Your task to perform on an android device: Open Chrome and go to settings Image 0: 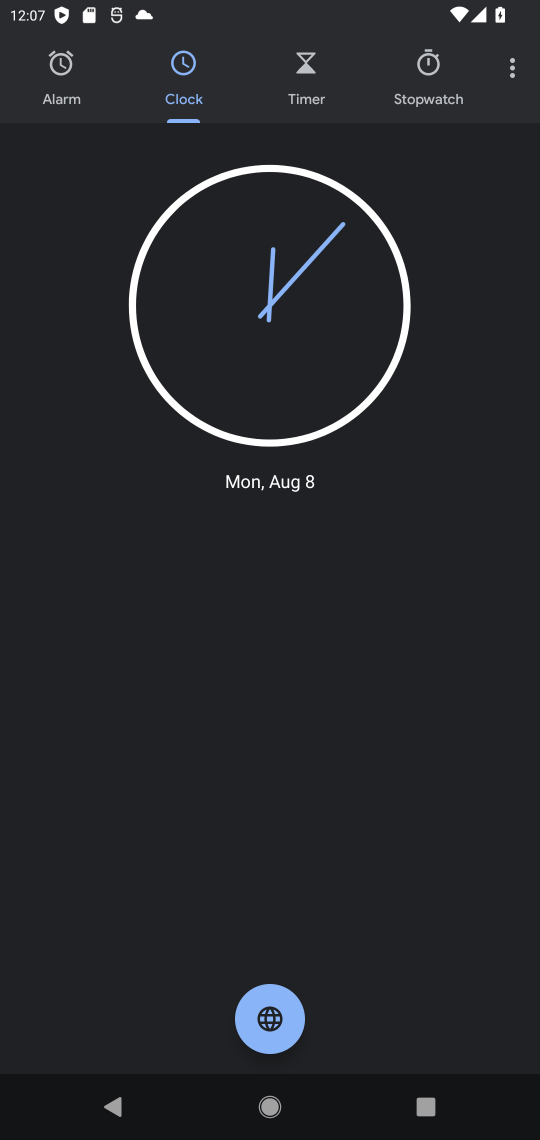
Step 0: press home button
Your task to perform on an android device: Open Chrome and go to settings Image 1: 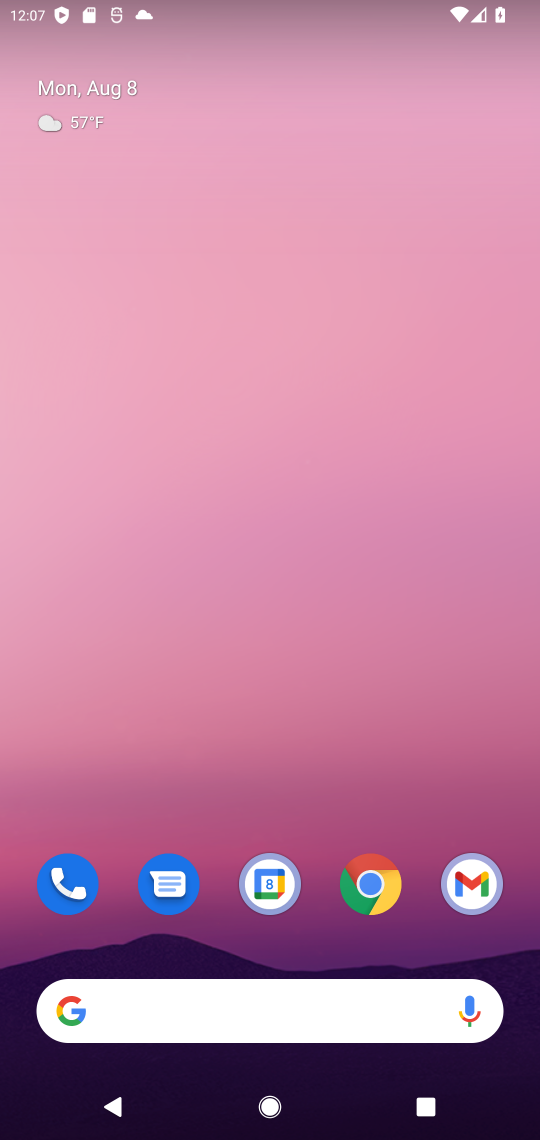
Step 1: click (377, 890)
Your task to perform on an android device: Open Chrome and go to settings Image 2: 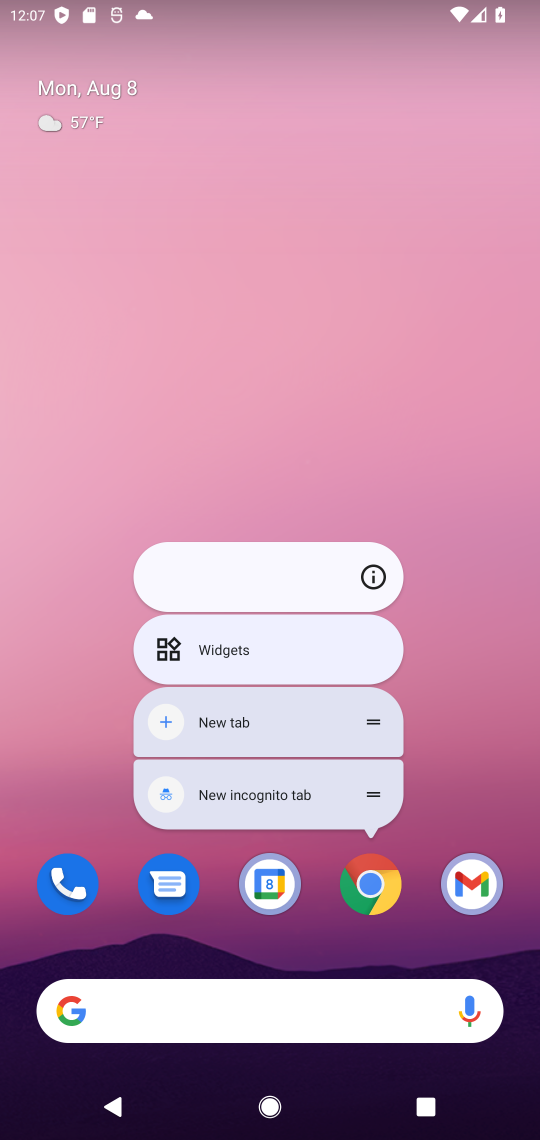
Step 2: click (377, 890)
Your task to perform on an android device: Open Chrome and go to settings Image 3: 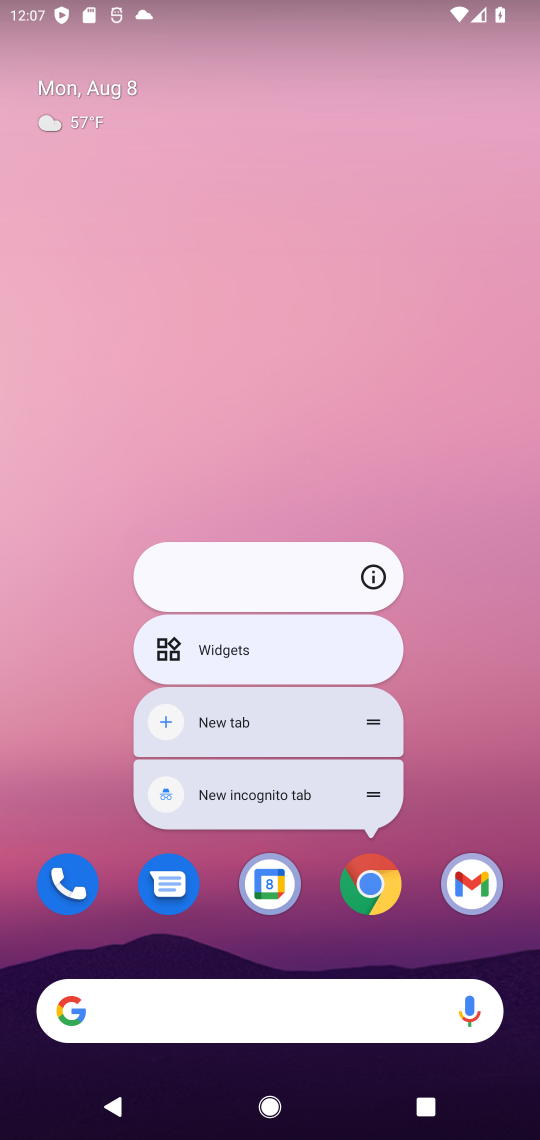
Step 3: click (377, 890)
Your task to perform on an android device: Open Chrome and go to settings Image 4: 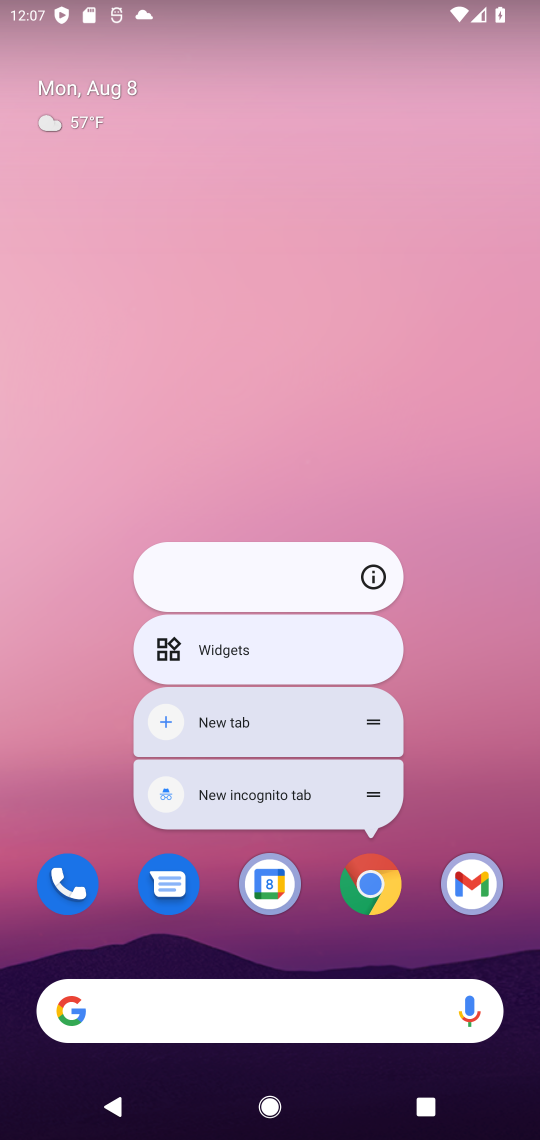
Step 4: click (377, 890)
Your task to perform on an android device: Open Chrome and go to settings Image 5: 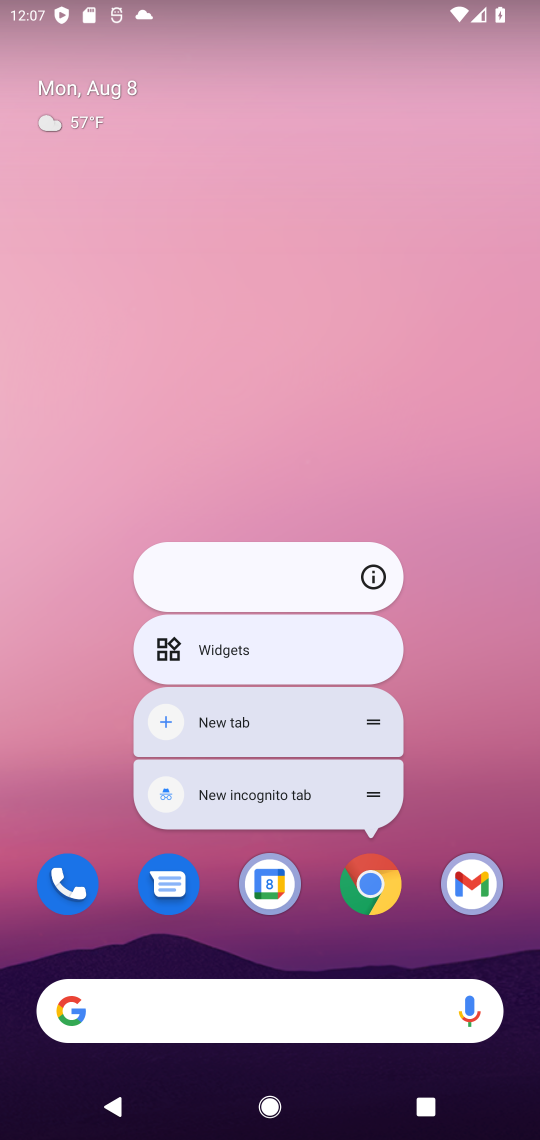
Step 5: click (359, 881)
Your task to perform on an android device: Open Chrome and go to settings Image 6: 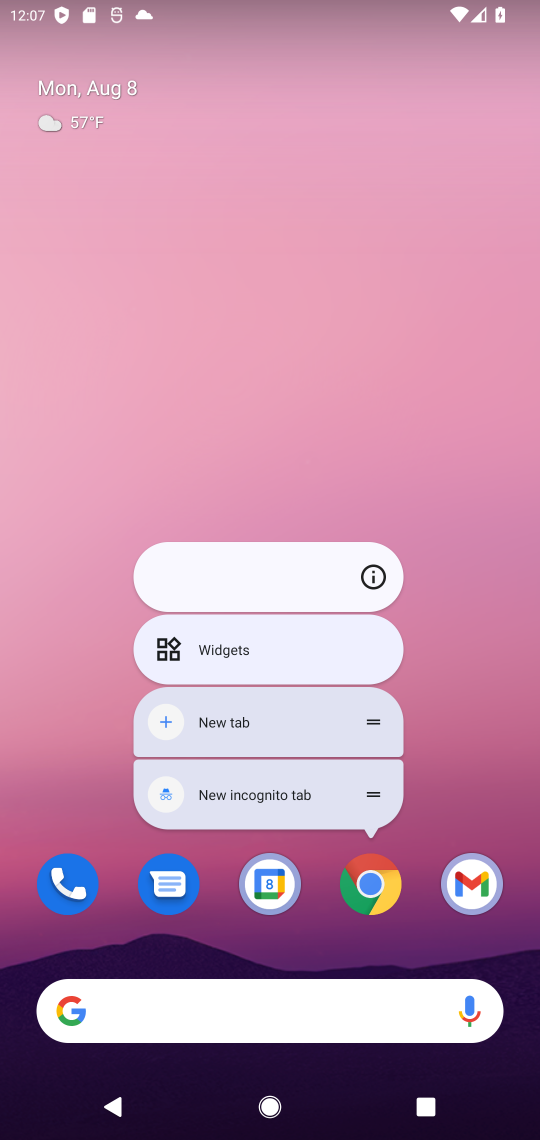
Step 6: click (359, 881)
Your task to perform on an android device: Open Chrome and go to settings Image 7: 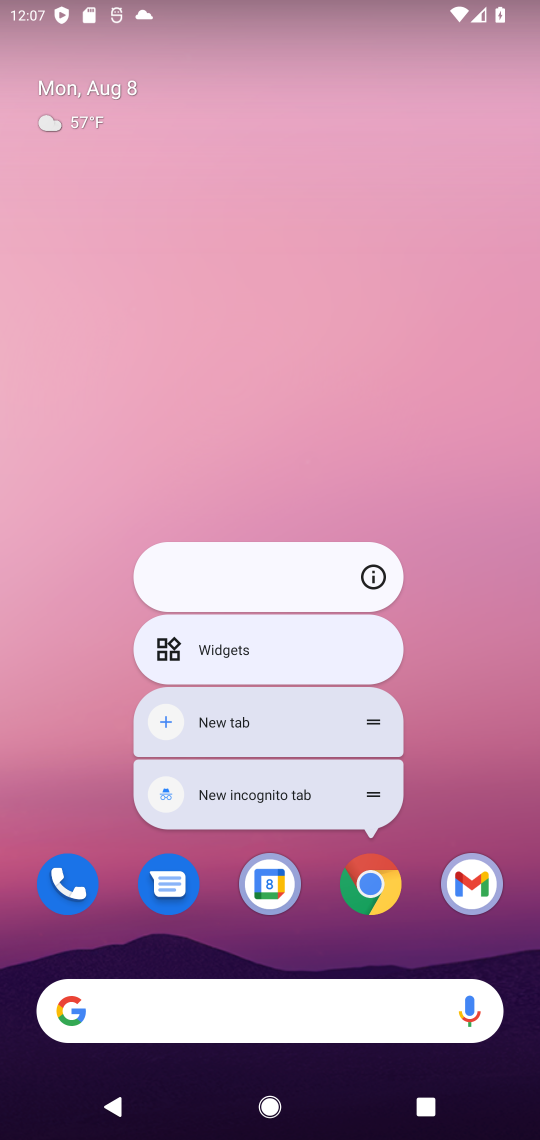
Step 7: click (366, 887)
Your task to perform on an android device: Open Chrome and go to settings Image 8: 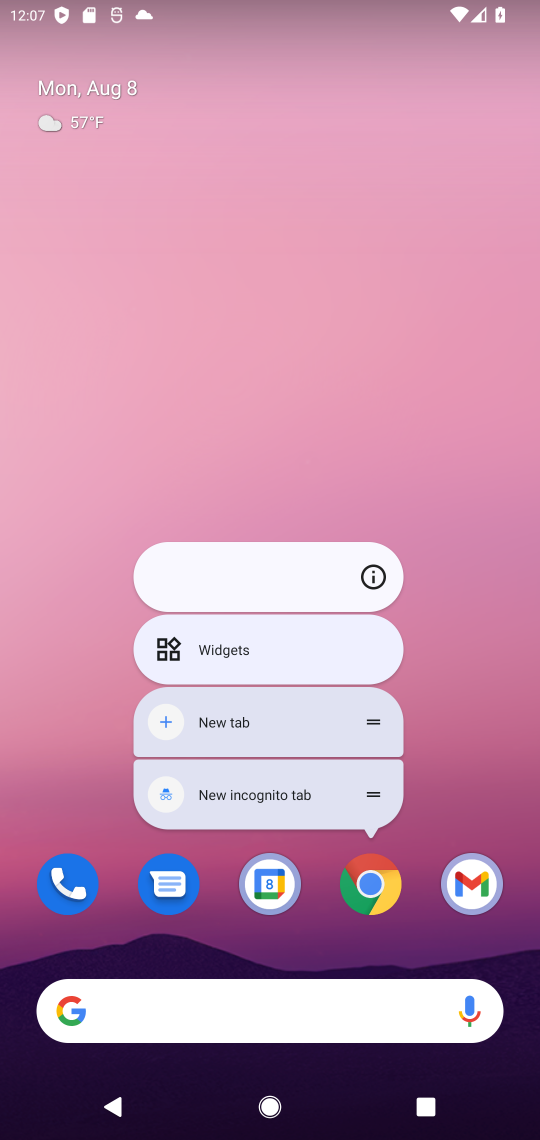
Step 8: click (363, 885)
Your task to perform on an android device: Open Chrome and go to settings Image 9: 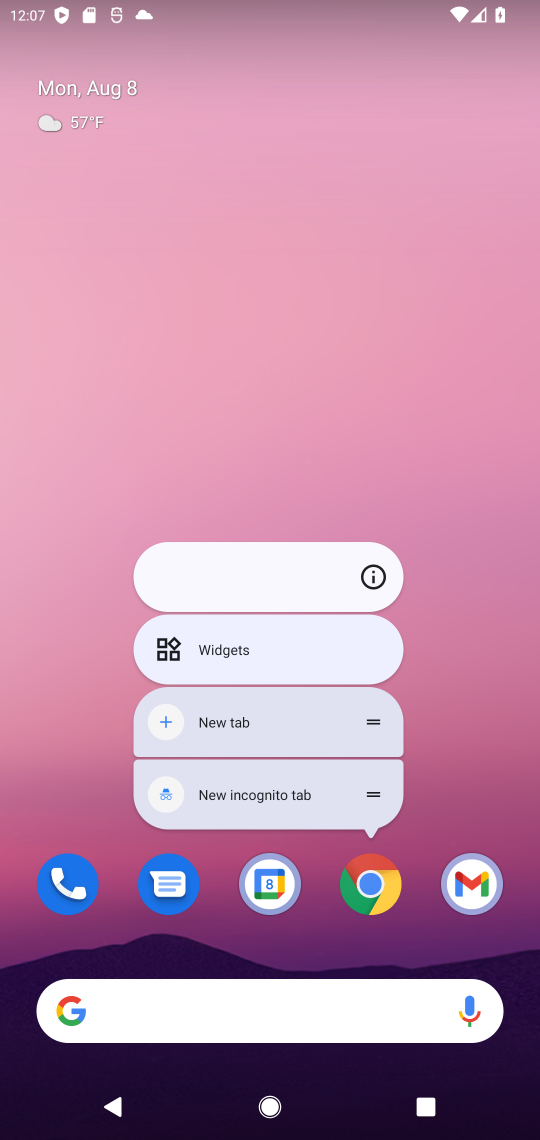
Step 9: click (361, 879)
Your task to perform on an android device: Open Chrome and go to settings Image 10: 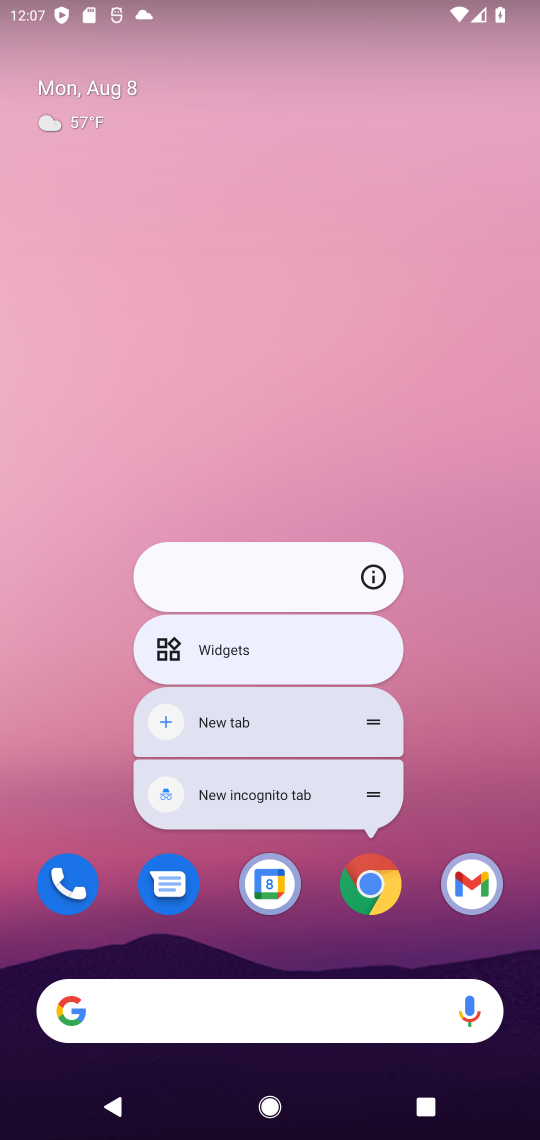
Step 10: click (363, 875)
Your task to perform on an android device: Open Chrome and go to settings Image 11: 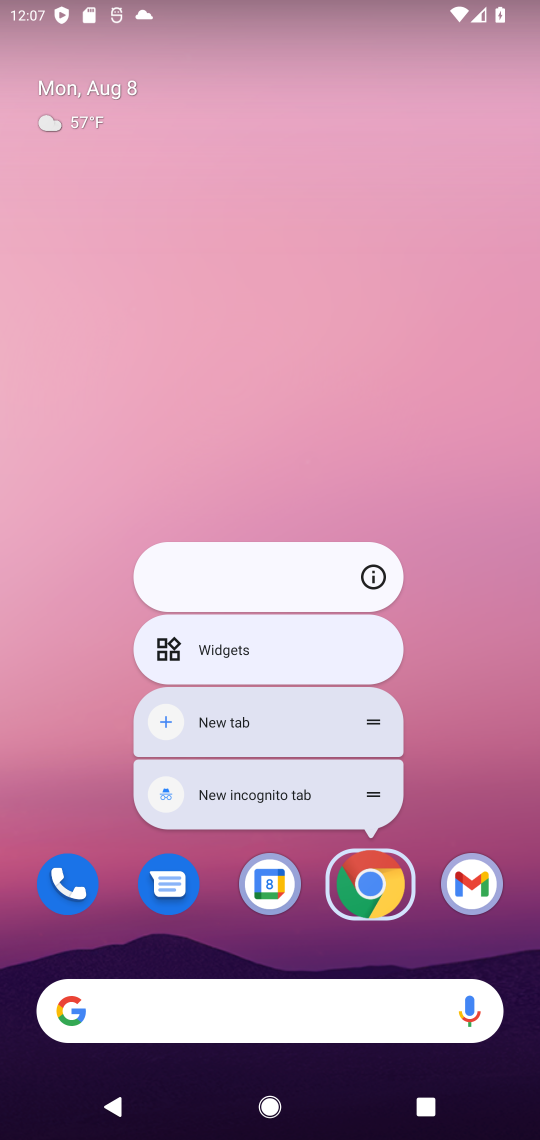
Step 11: click (363, 875)
Your task to perform on an android device: Open Chrome and go to settings Image 12: 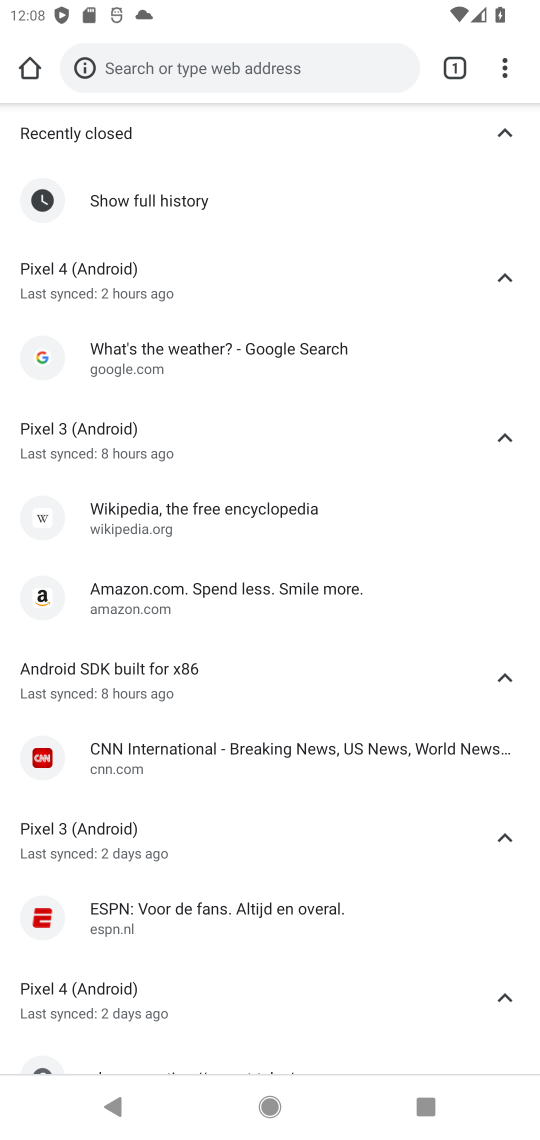
Step 12: click (505, 67)
Your task to perform on an android device: Open Chrome and go to settings Image 13: 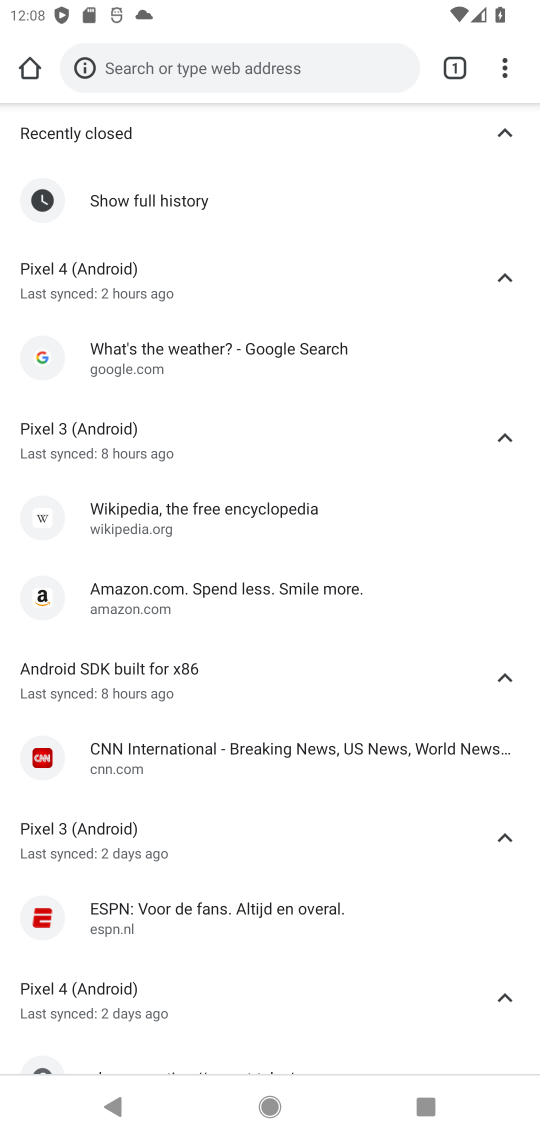
Step 13: click (505, 64)
Your task to perform on an android device: Open Chrome and go to settings Image 14: 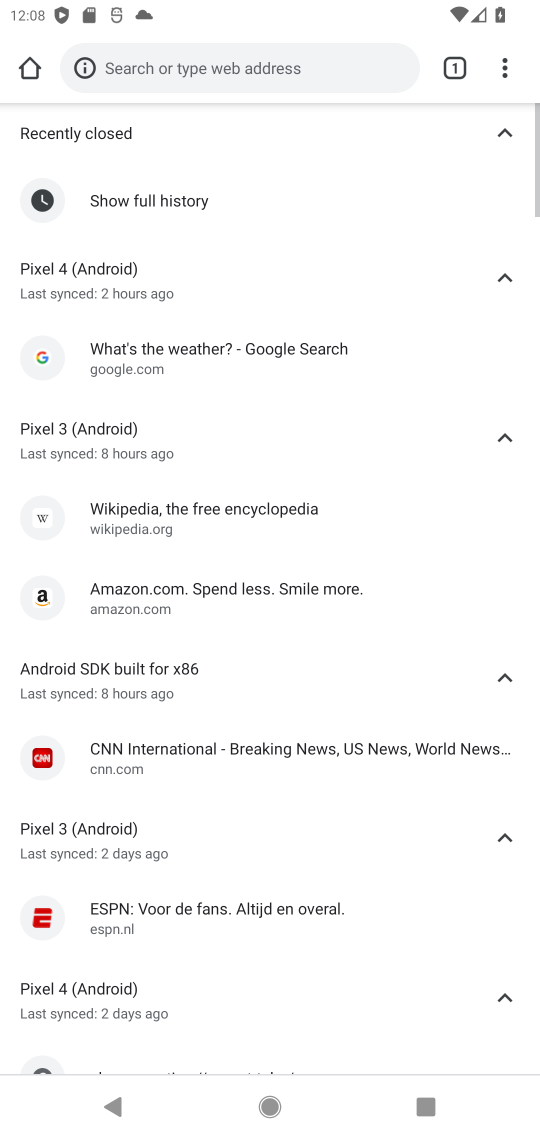
Step 14: click (506, 61)
Your task to perform on an android device: Open Chrome and go to settings Image 15: 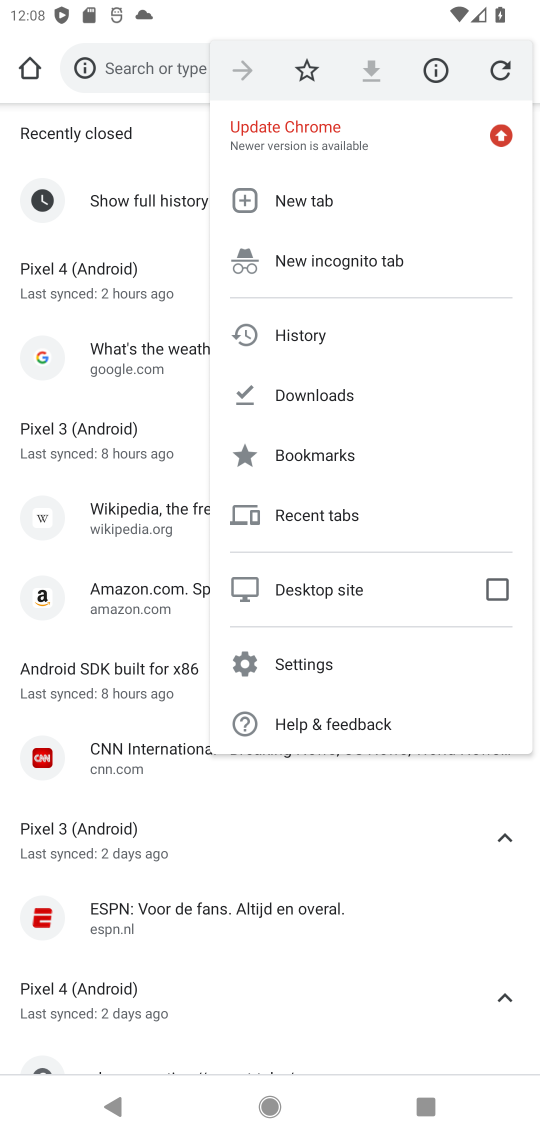
Step 15: click (331, 664)
Your task to perform on an android device: Open Chrome and go to settings Image 16: 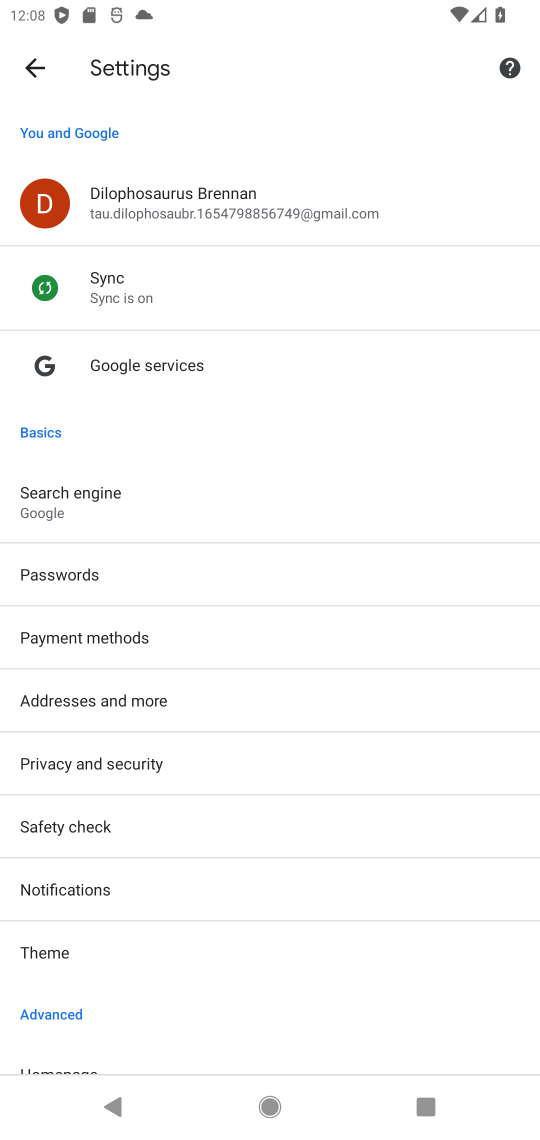
Step 16: task complete